Your task to perform on an android device: turn on location history Image 0: 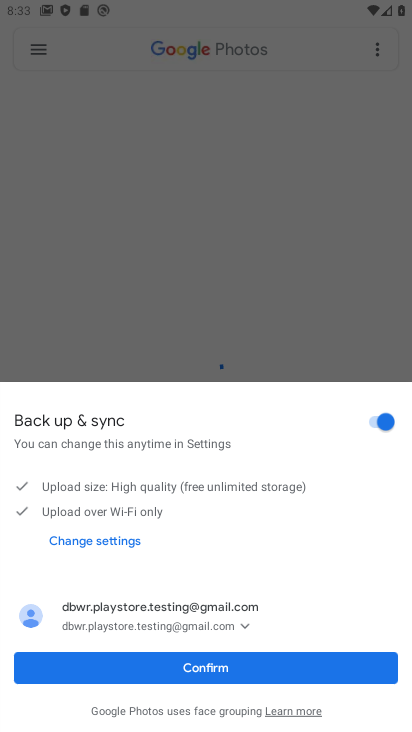
Step 0: press home button
Your task to perform on an android device: turn on location history Image 1: 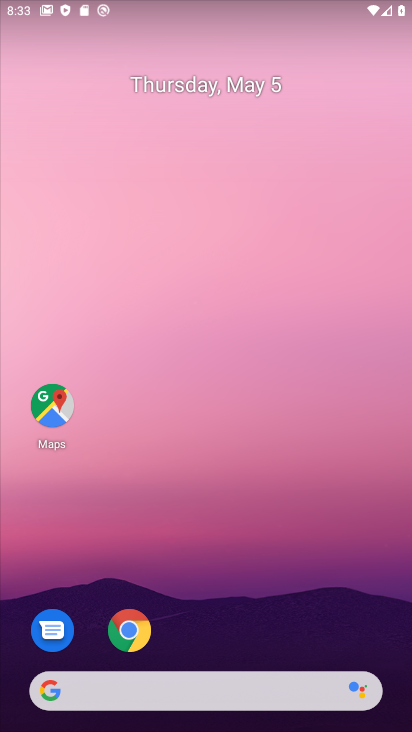
Step 1: drag from (213, 630) to (278, 19)
Your task to perform on an android device: turn on location history Image 2: 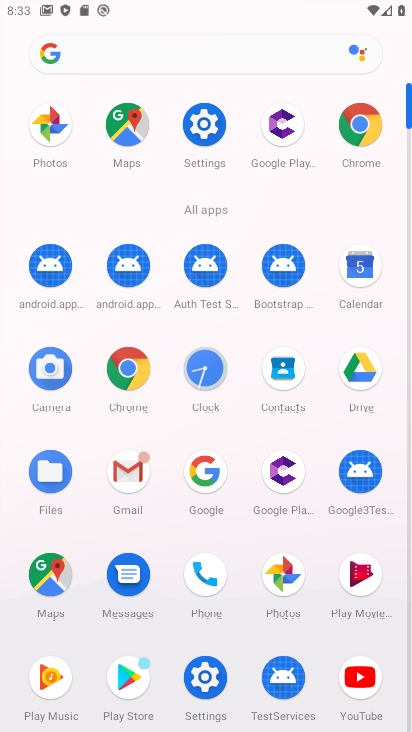
Step 2: click (204, 106)
Your task to perform on an android device: turn on location history Image 3: 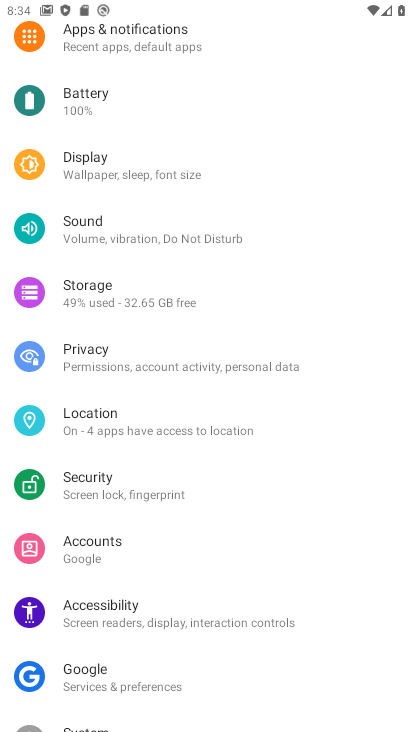
Step 3: click (108, 416)
Your task to perform on an android device: turn on location history Image 4: 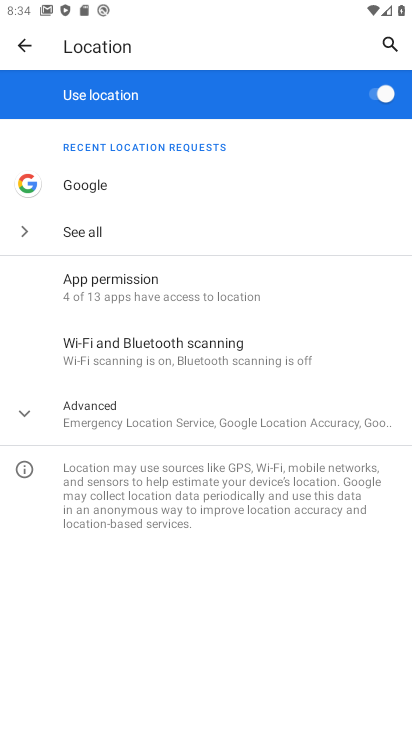
Step 4: click (109, 422)
Your task to perform on an android device: turn on location history Image 5: 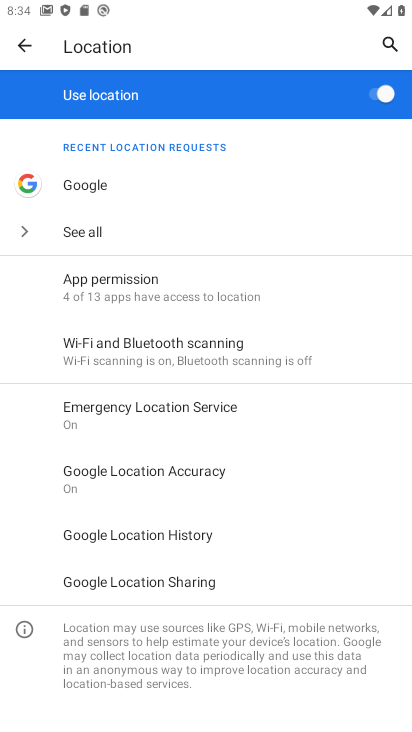
Step 5: click (139, 556)
Your task to perform on an android device: turn on location history Image 6: 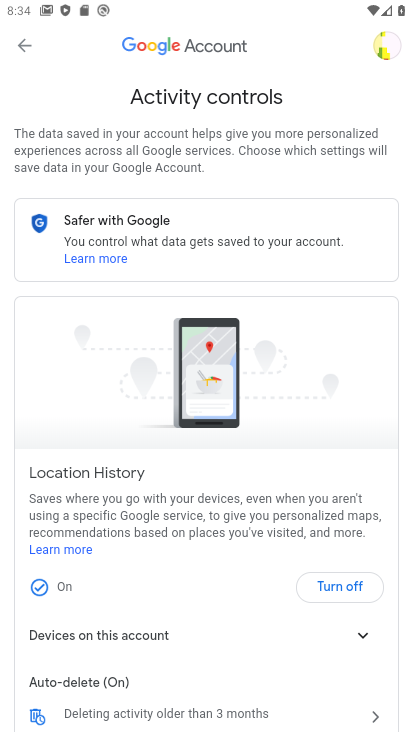
Step 6: task complete